Your task to perform on an android device: add a label to a message in the gmail app Image 0: 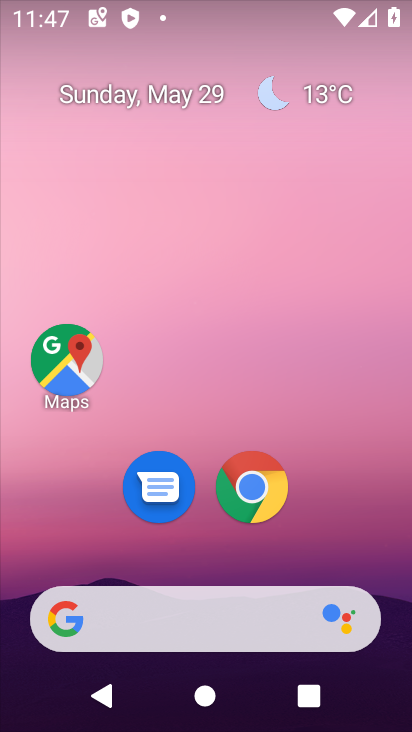
Step 0: drag from (371, 469) to (341, 94)
Your task to perform on an android device: add a label to a message in the gmail app Image 1: 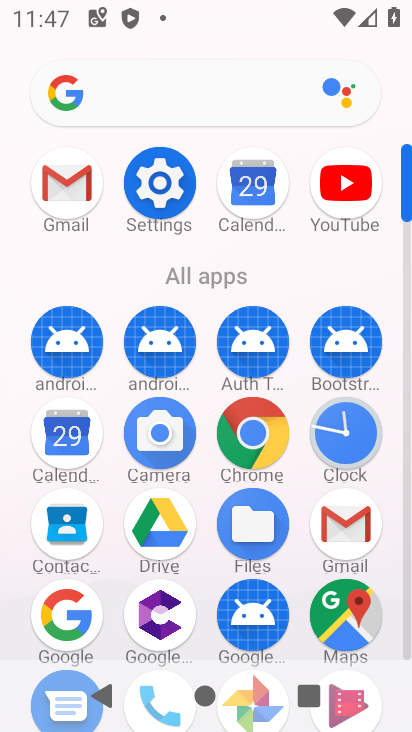
Step 1: click (335, 543)
Your task to perform on an android device: add a label to a message in the gmail app Image 2: 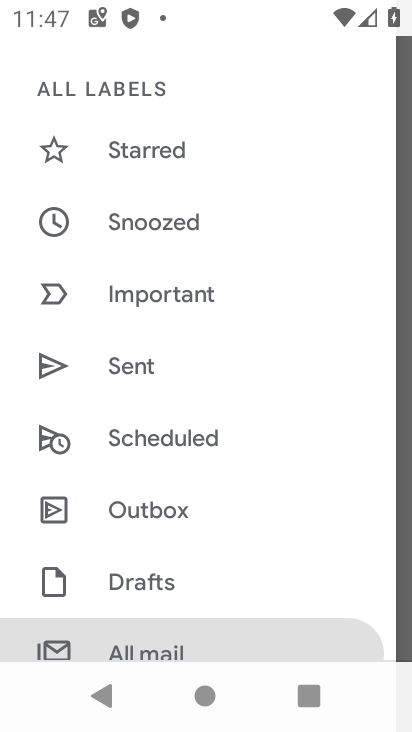
Step 2: click (217, 645)
Your task to perform on an android device: add a label to a message in the gmail app Image 3: 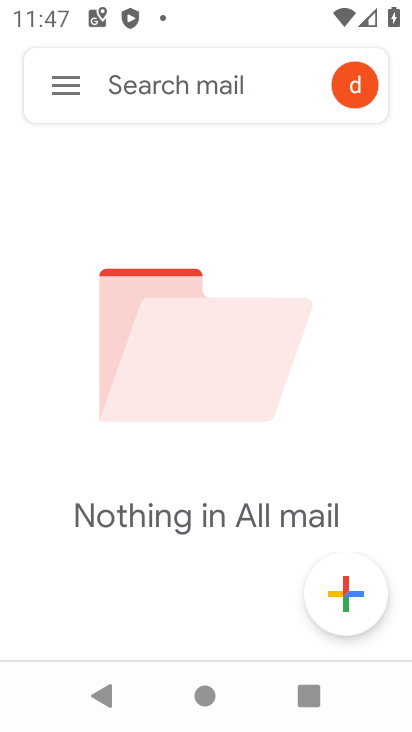
Step 3: task complete